Your task to perform on an android device: open app "Google Calendar" (install if not already installed) Image 0: 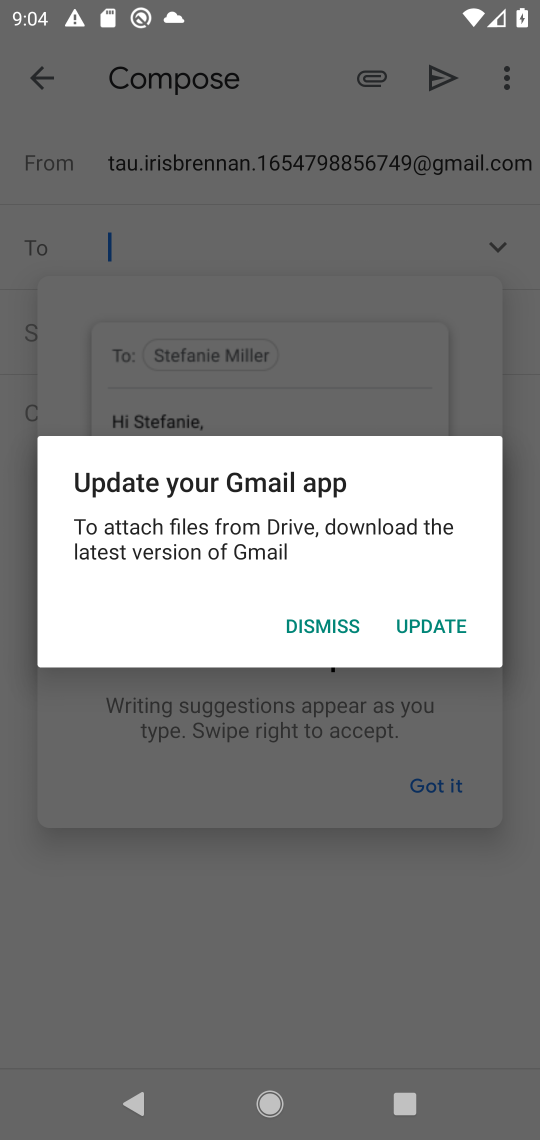
Step 0: click (435, 628)
Your task to perform on an android device: open app "Google Calendar" (install if not already installed) Image 1: 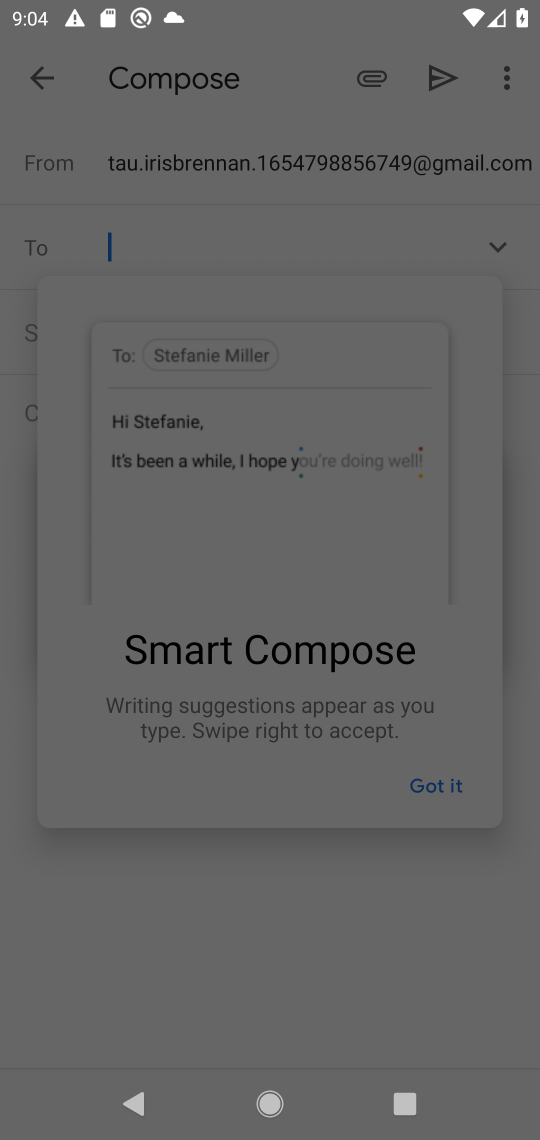
Step 1: press home button
Your task to perform on an android device: open app "Google Calendar" (install if not already installed) Image 2: 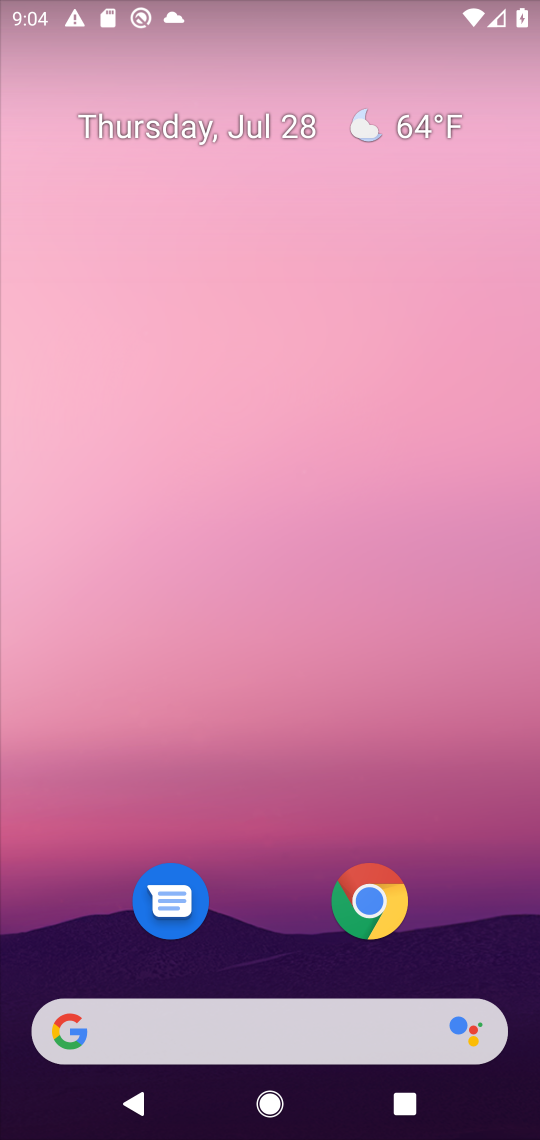
Step 2: drag from (499, 920) to (470, 200)
Your task to perform on an android device: open app "Google Calendar" (install if not already installed) Image 3: 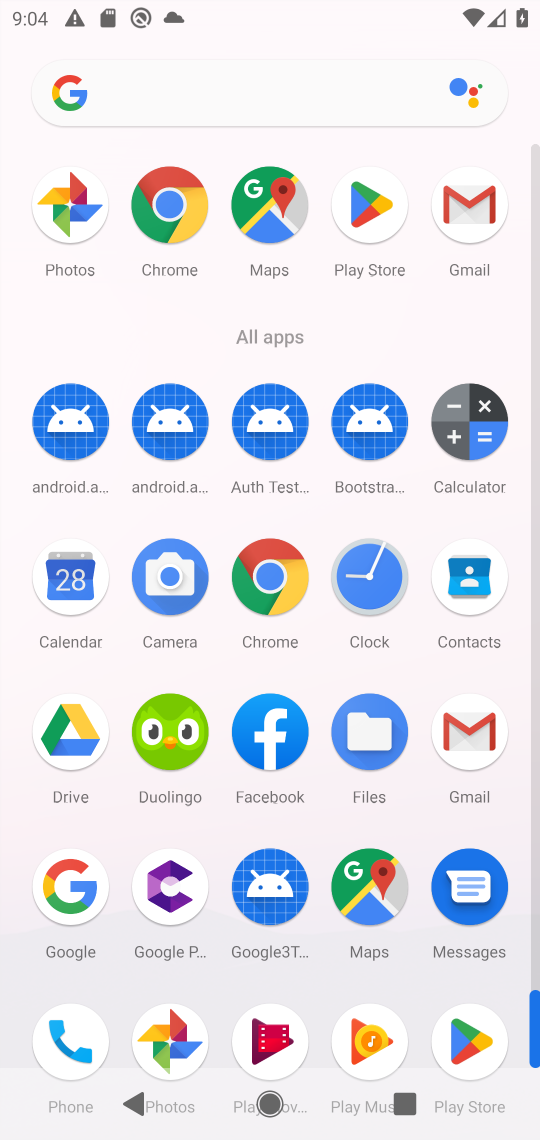
Step 3: click (66, 578)
Your task to perform on an android device: open app "Google Calendar" (install if not already installed) Image 4: 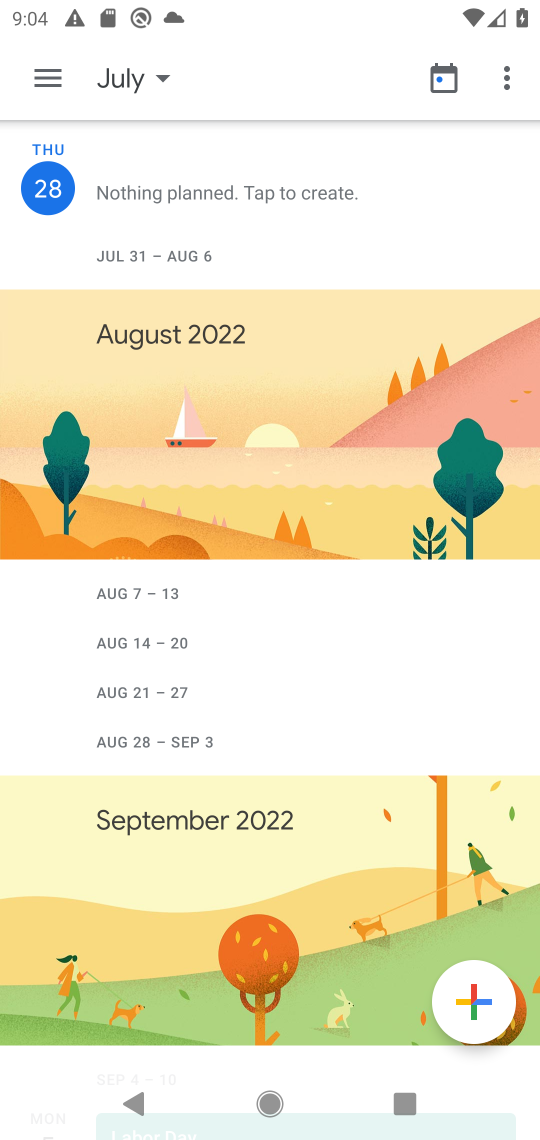
Step 4: task complete